Your task to perform on an android device: Open my contact list Image 0: 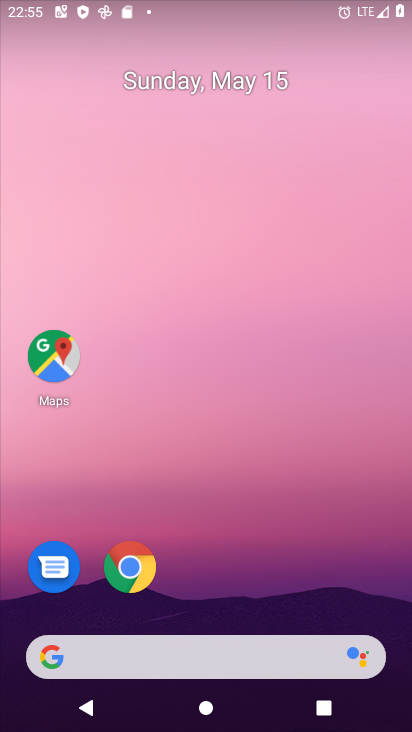
Step 0: drag from (243, 627) to (219, 223)
Your task to perform on an android device: Open my contact list Image 1: 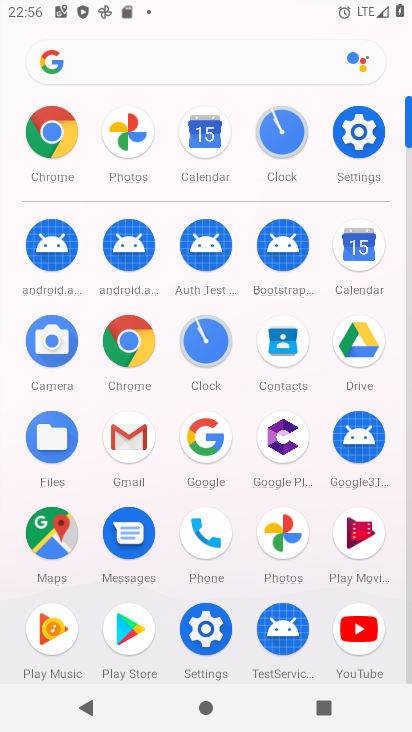
Step 1: click (294, 352)
Your task to perform on an android device: Open my contact list Image 2: 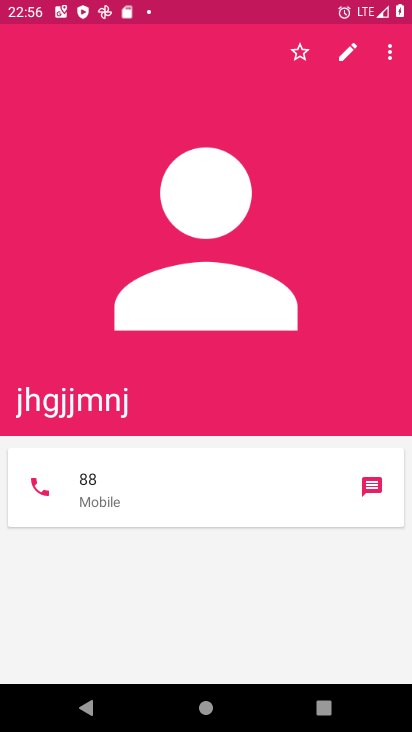
Step 2: task complete